Your task to perform on an android device: Go to privacy settings Image 0: 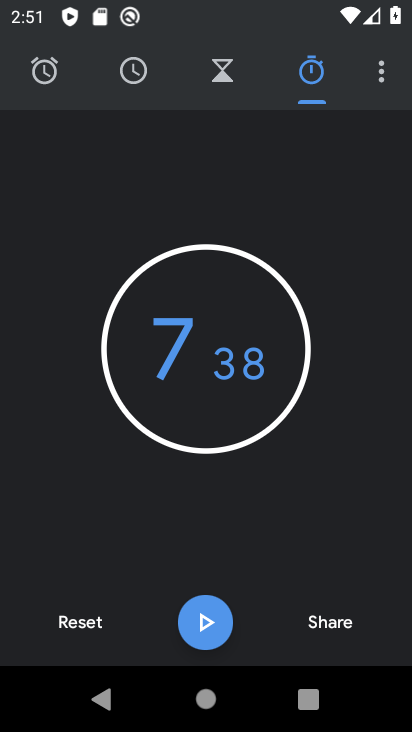
Step 0: press home button
Your task to perform on an android device: Go to privacy settings Image 1: 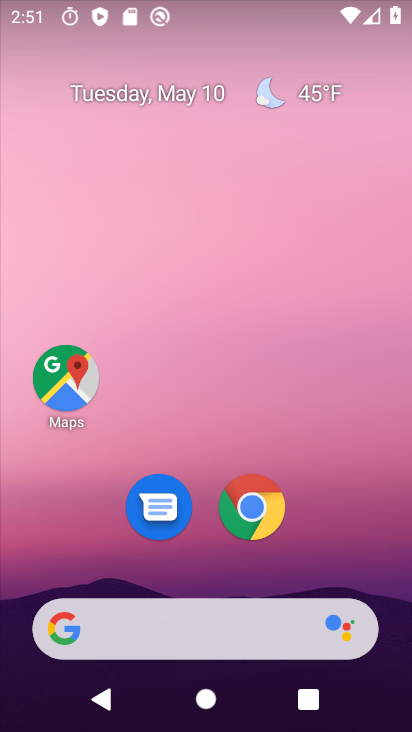
Step 1: drag from (207, 597) to (190, 141)
Your task to perform on an android device: Go to privacy settings Image 2: 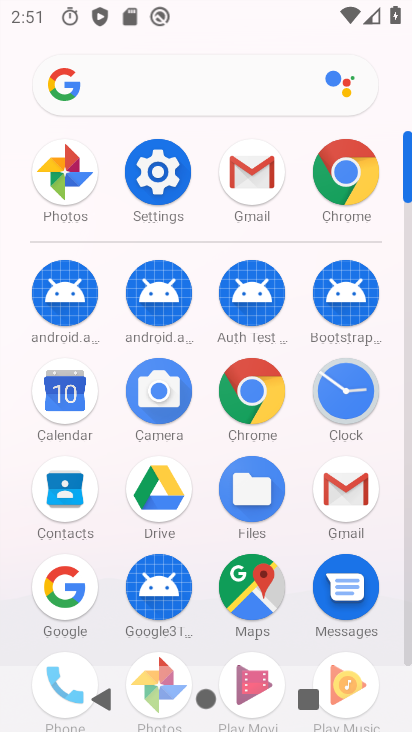
Step 2: click (141, 183)
Your task to perform on an android device: Go to privacy settings Image 3: 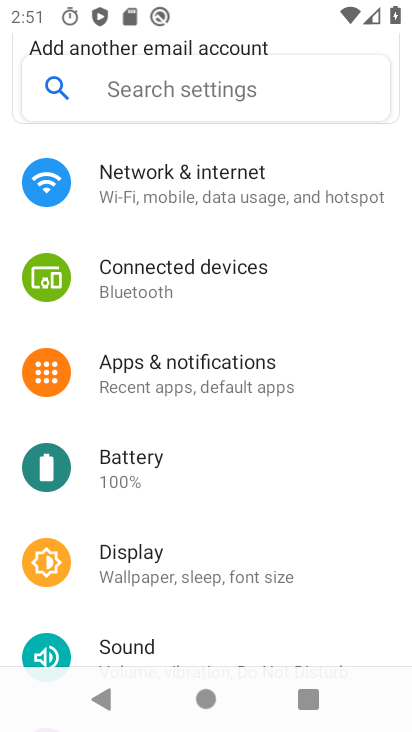
Step 3: drag from (163, 632) to (127, 339)
Your task to perform on an android device: Go to privacy settings Image 4: 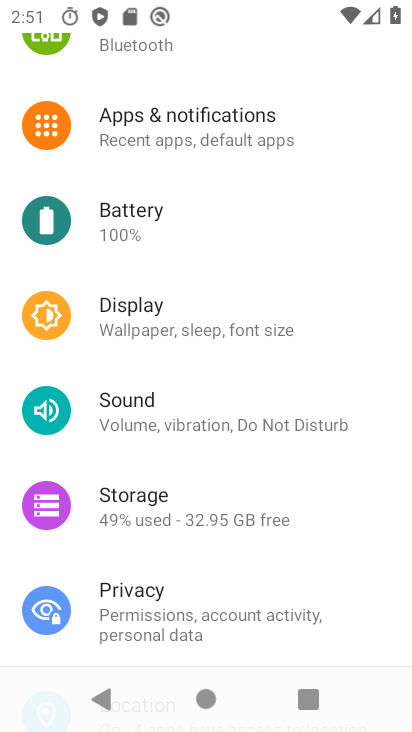
Step 4: drag from (133, 632) to (117, 321)
Your task to perform on an android device: Go to privacy settings Image 5: 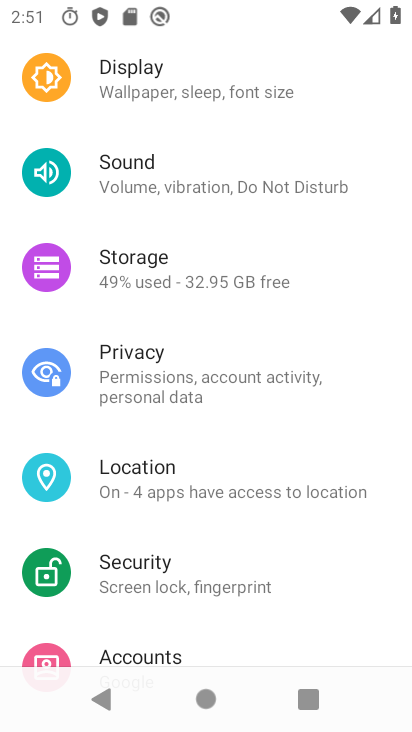
Step 5: click (135, 389)
Your task to perform on an android device: Go to privacy settings Image 6: 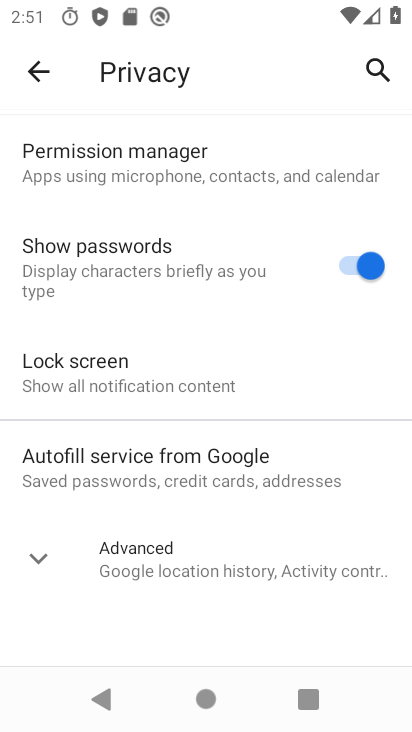
Step 6: click (150, 558)
Your task to perform on an android device: Go to privacy settings Image 7: 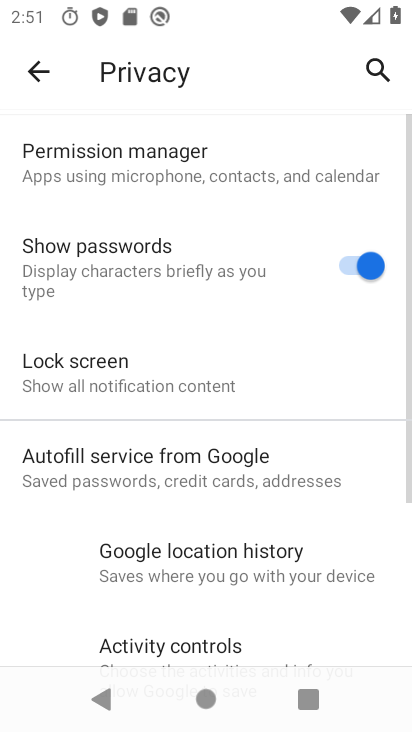
Step 7: task complete